Your task to perform on an android device: turn on improve location accuracy Image 0: 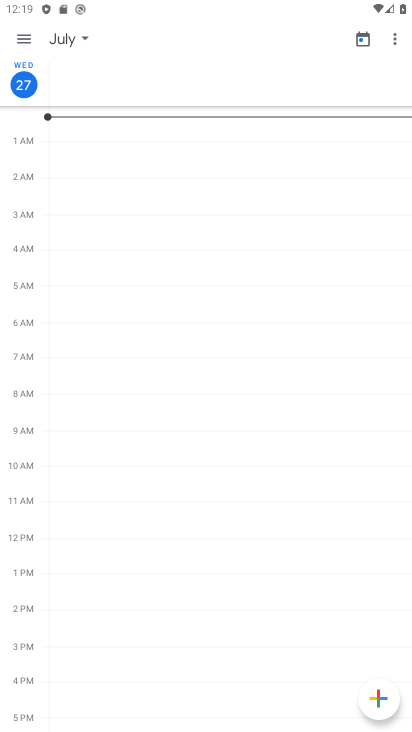
Step 0: press home button
Your task to perform on an android device: turn on improve location accuracy Image 1: 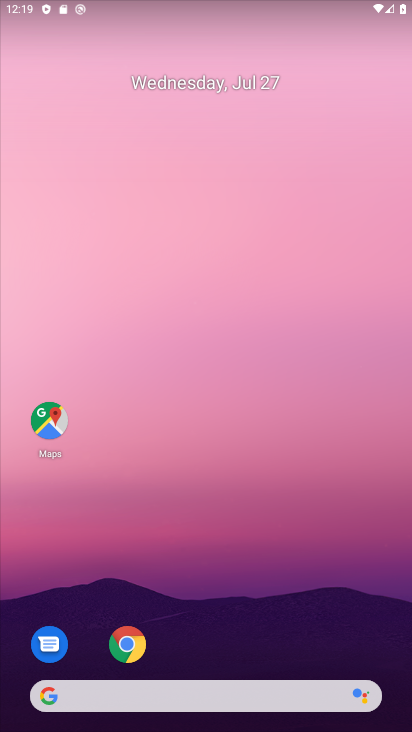
Step 1: drag from (225, 588) to (300, 13)
Your task to perform on an android device: turn on improve location accuracy Image 2: 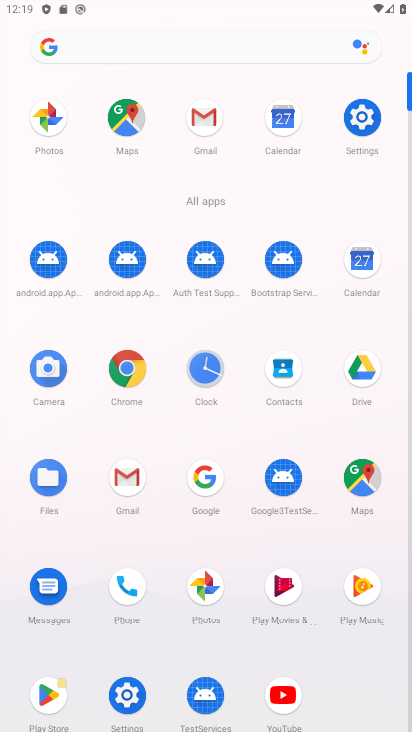
Step 2: click (124, 699)
Your task to perform on an android device: turn on improve location accuracy Image 3: 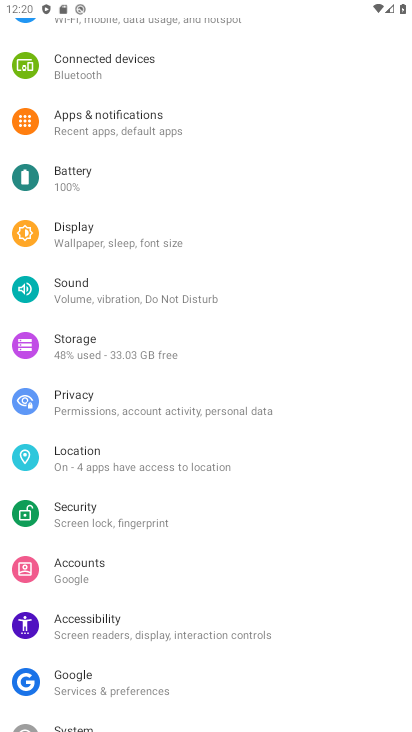
Step 3: click (173, 460)
Your task to perform on an android device: turn on improve location accuracy Image 4: 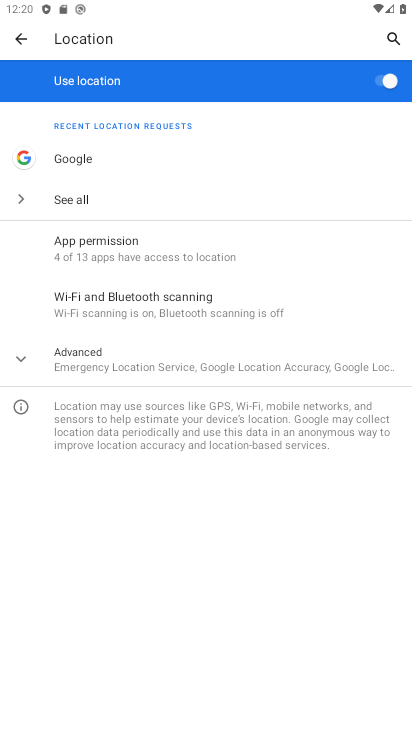
Step 4: click (160, 366)
Your task to perform on an android device: turn on improve location accuracy Image 5: 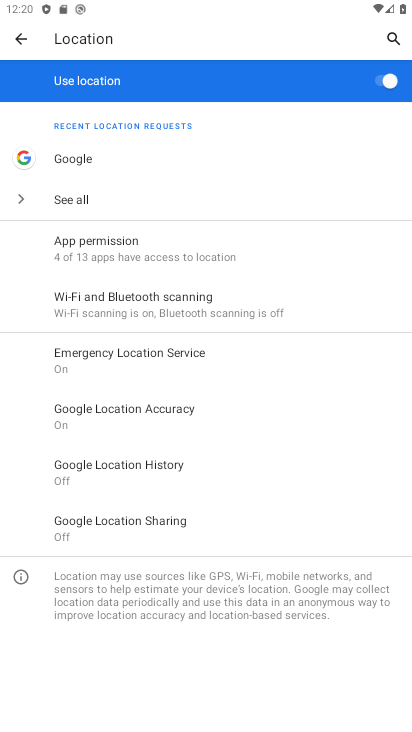
Step 5: click (174, 412)
Your task to perform on an android device: turn on improve location accuracy Image 6: 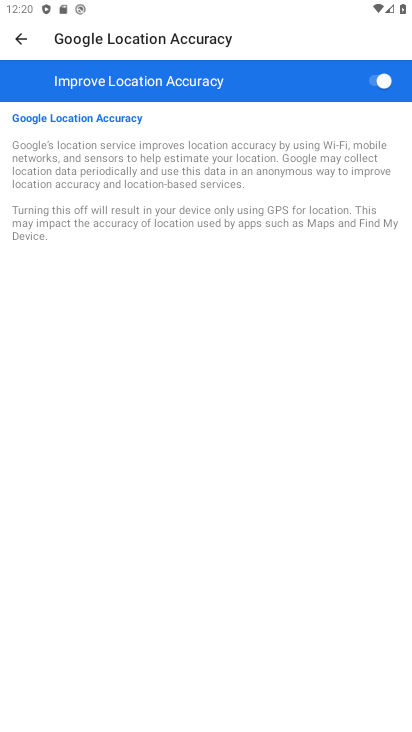
Step 6: task complete